Your task to perform on an android device: open device folders in google photos Image 0: 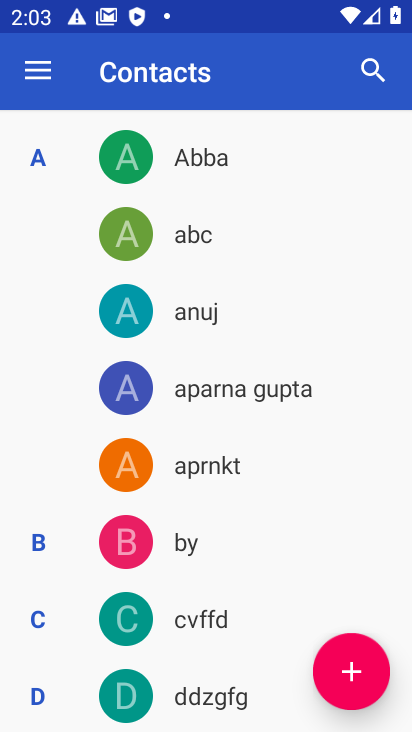
Step 0: press back button
Your task to perform on an android device: open device folders in google photos Image 1: 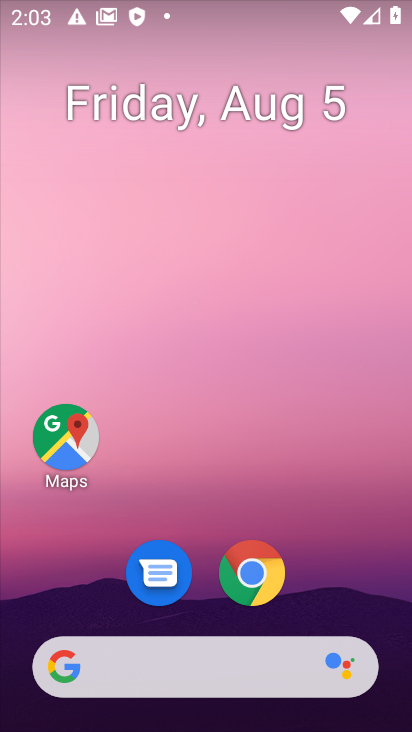
Step 1: drag from (351, 594) to (216, 78)
Your task to perform on an android device: open device folders in google photos Image 2: 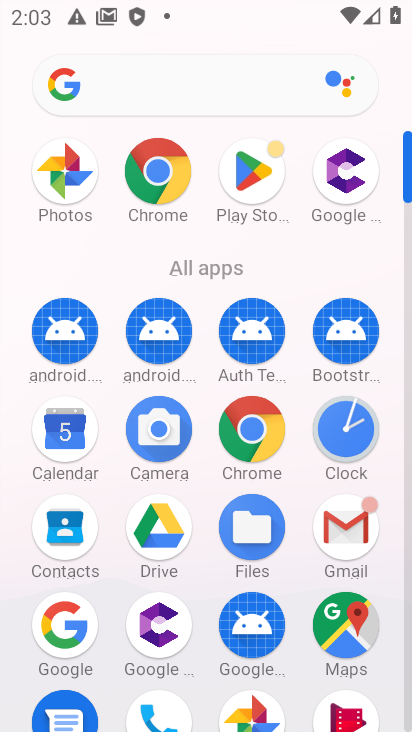
Step 2: click (251, 712)
Your task to perform on an android device: open device folders in google photos Image 3: 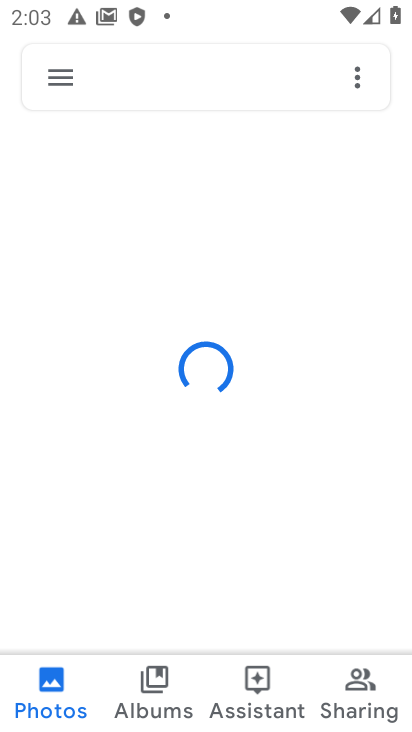
Step 3: click (52, 82)
Your task to perform on an android device: open device folders in google photos Image 4: 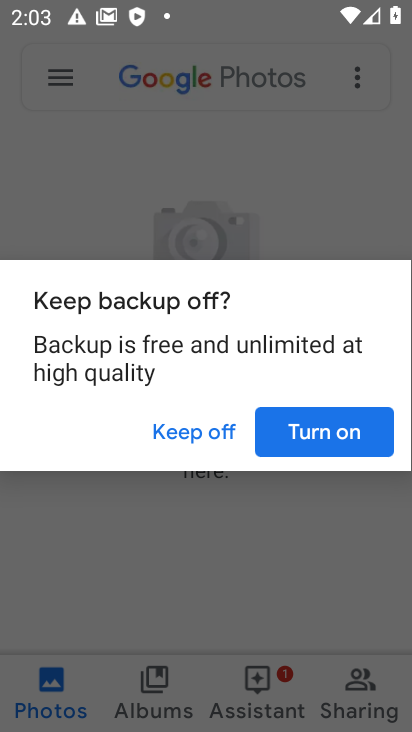
Step 4: click (319, 441)
Your task to perform on an android device: open device folders in google photos Image 5: 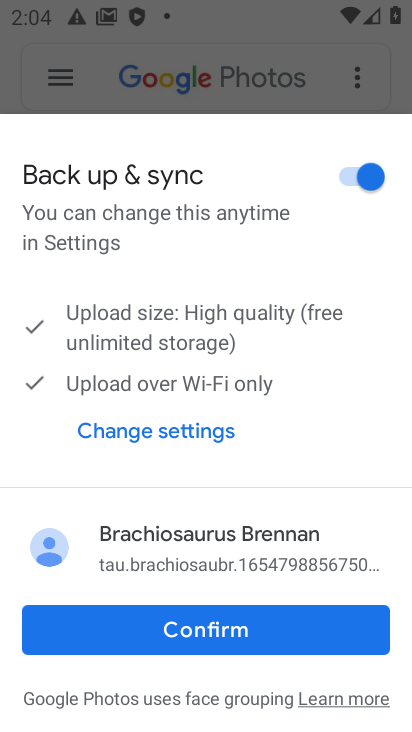
Step 5: click (262, 621)
Your task to perform on an android device: open device folders in google photos Image 6: 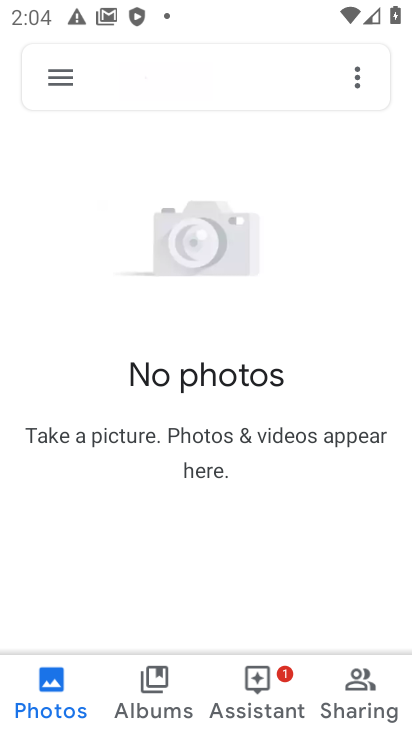
Step 6: click (65, 87)
Your task to perform on an android device: open device folders in google photos Image 7: 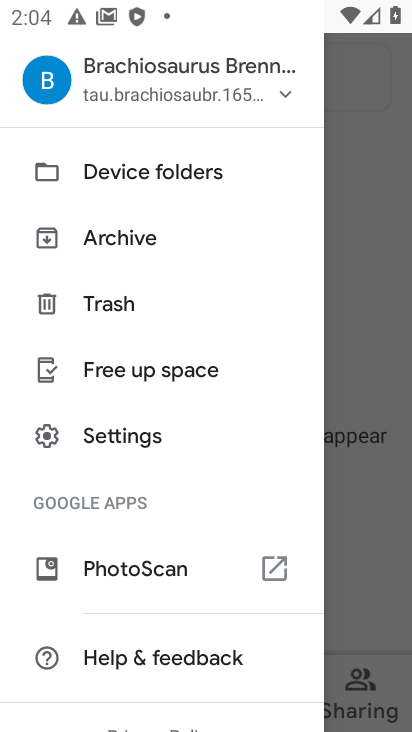
Step 7: click (124, 159)
Your task to perform on an android device: open device folders in google photos Image 8: 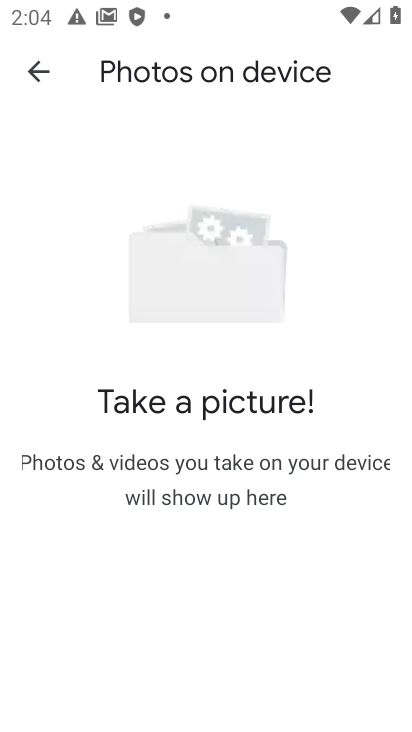
Step 8: task complete